Your task to perform on an android device: Go to sound settings Image 0: 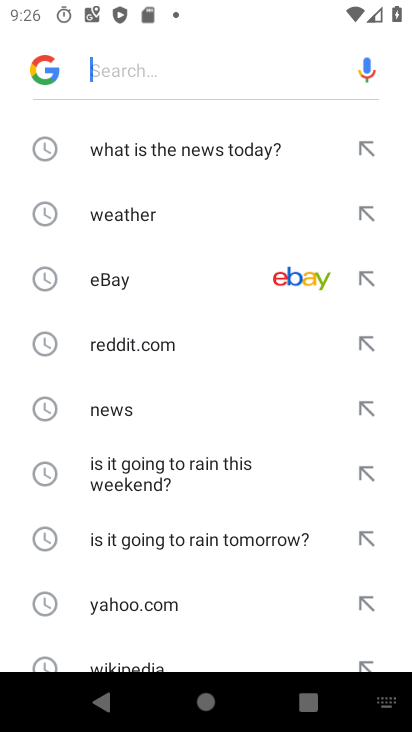
Step 0: press home button
Your task to perform on an android device: Go to sound settings Image 1: 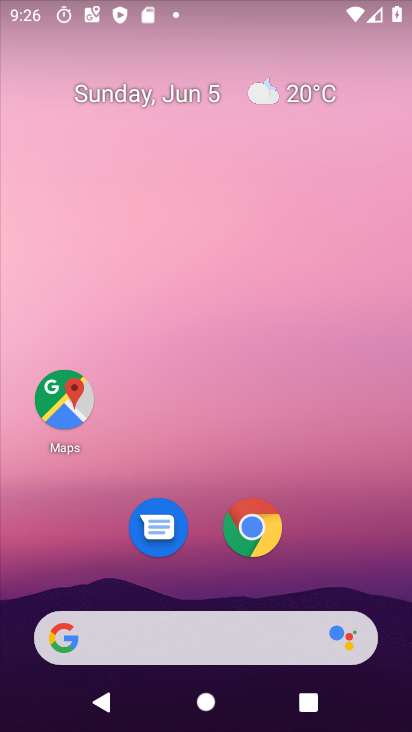
Step 1: drag from (337, 333) to (255, 1)
Your task to perform on an android device: Go to sound settings Image 2: 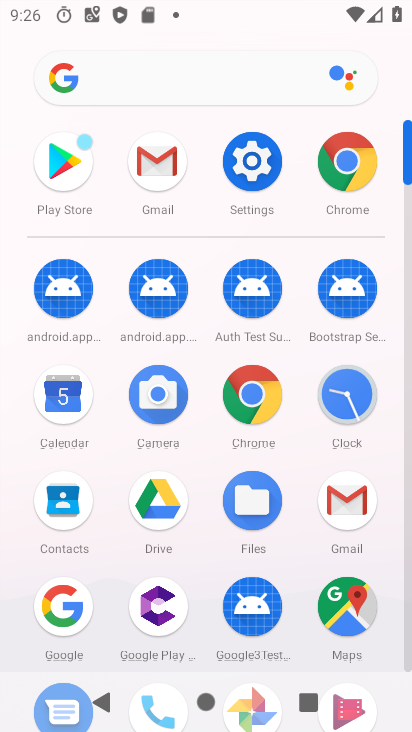
Step 2: click (240, 187)
Your task to perform on an android device: Go to sound settings Image 3: 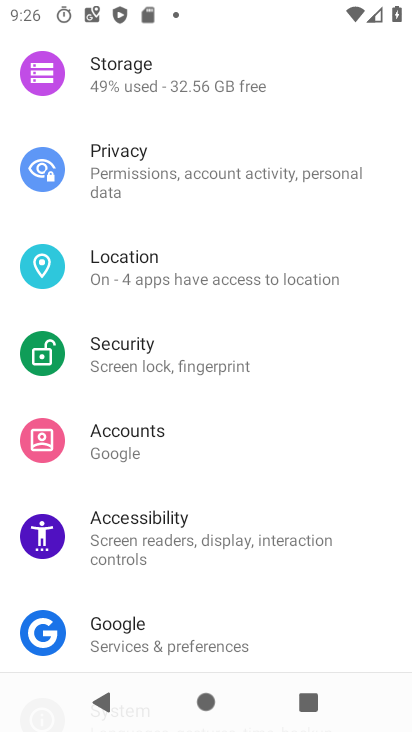
Step 3: drag from (210, 625) to (268, 197)
Your task to perform on an android device: Go to sound settings Image 4: 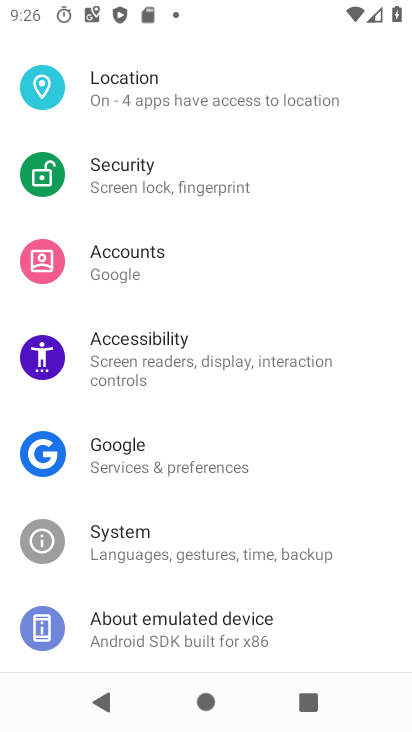
Step 4: drag from (251, 275) to (255, 644)
Your task to perform on an android device: Go to sound settings Image 5: 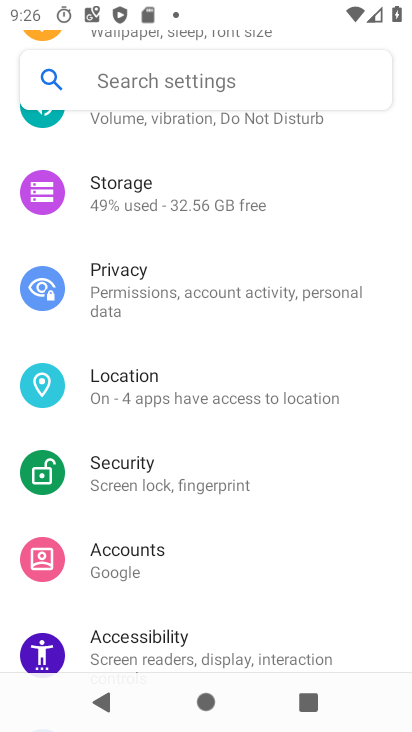
Step 5: drag from (363, 192) to (291, 628)
Your task to perform on an android device: Go to sound settings Image 6: 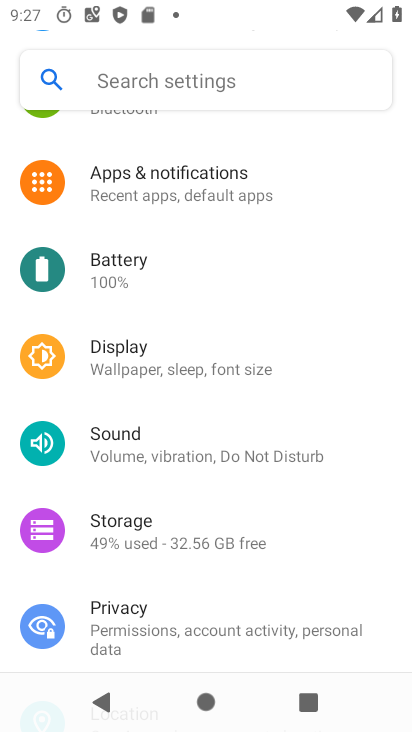
Step 6: click (130, 453)
Your task to perform on an android device: Go to sound settings Image 7: 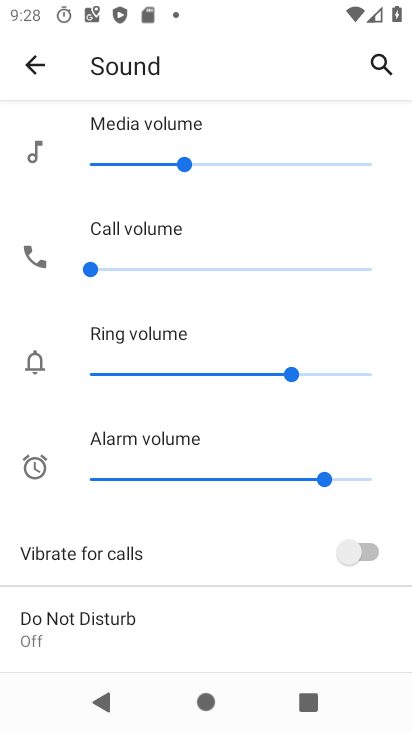
Step 7: task complete